Your task to perform on an android device: install app "HBO Max: Stream TV & Movies" Image 0: 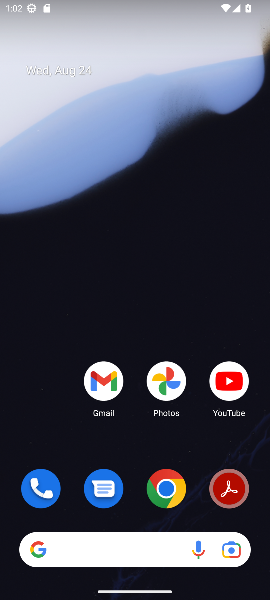
Step 0: drag from (135, 505) to (156, 107)
Your task to perform on an android device: install app "HBO Max: Stream TV & Movies" Image 1: 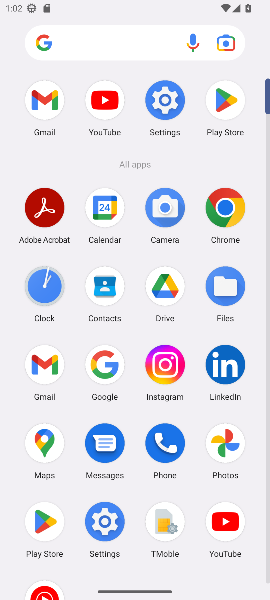
Step 1: click (230, 96)
Your task to perform on an android device: install app "HBO Max: Stream TV & Movies" Image 2: 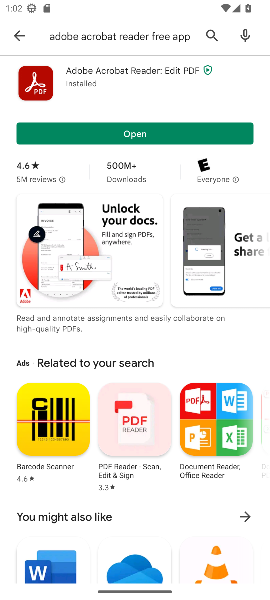
Step 2: click (21, 33)
Your task to perform on an android device: install app "HBO Max: Stream TV & Movies" Image 3: 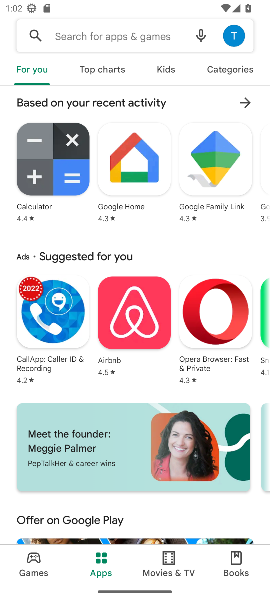
Step 3: click (82, 33)
Your task to perform on an android device: install app "HBO Max: Stream TV & Movies" Image 4: 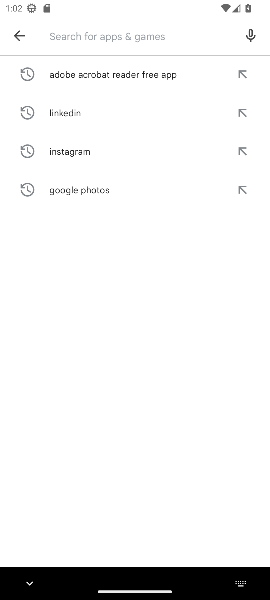
Step 4: type "HBO Max: Stream TV & Movies"
Your task to perform on an android device: install app "HBO Max: Stream TV & Movies" Image 5: 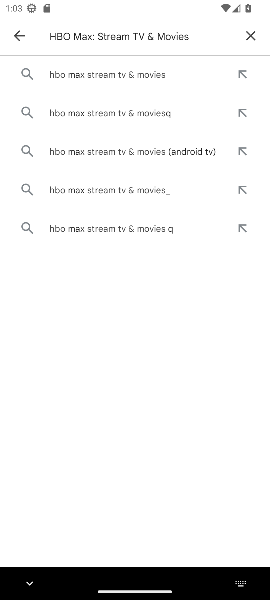
Step 5: click (123, 71)
Your task to perform on an android device: install app "HBO Max: Stream TV & Movies" Image 6: 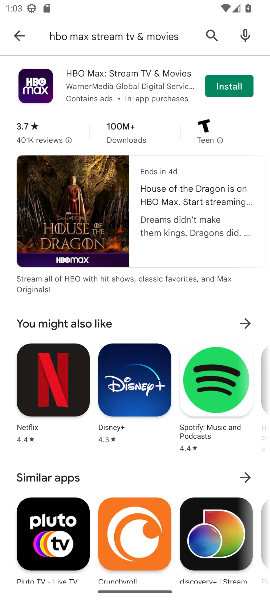
Step 6: click (224, 88)
Your task to perform on an android device: install app "HBO Max: Stream TV & Movies" Image 7: 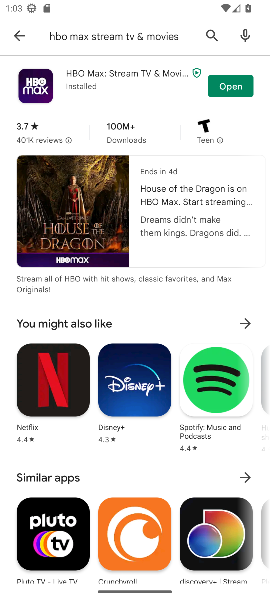
Step 7: task complete